Your task to perform on an android device: Go to Google Image 0: 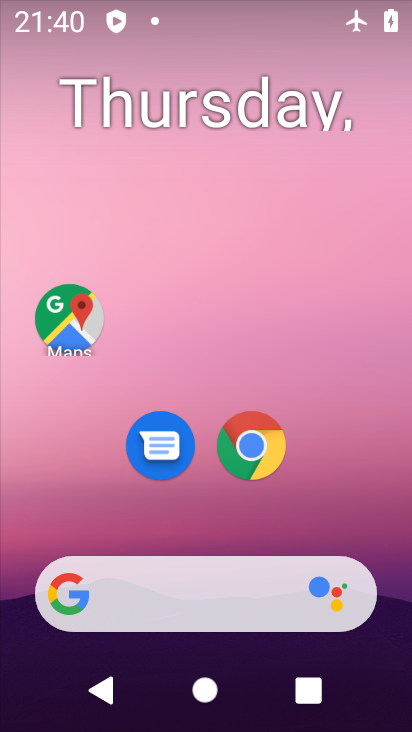
Step 0: click (69, 598)
Your task to perform on an android device: Go to Google Image 1: 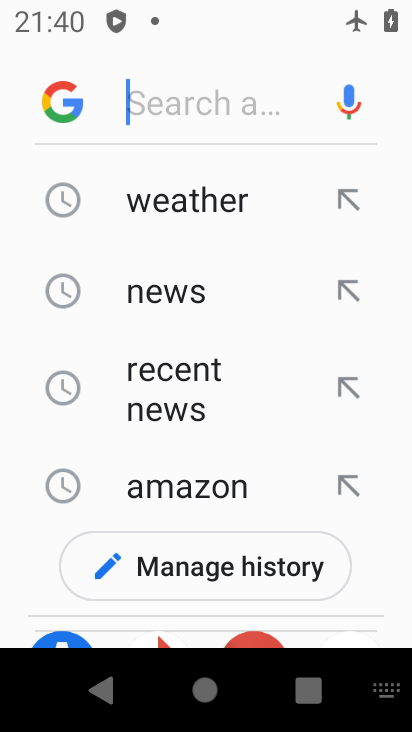
Step 1: click (44, 100)
Your task to perform on an android device: Go to Google Image 2: 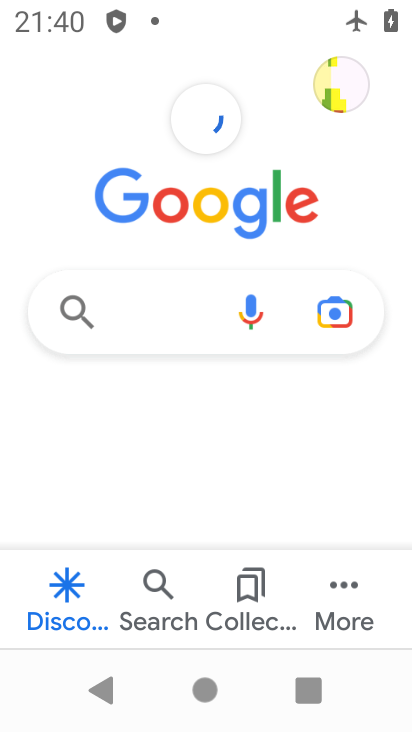
Step 2: task complete